Your task to perform on an android device: Search for seafood restaurants on Google Maps Image 0: 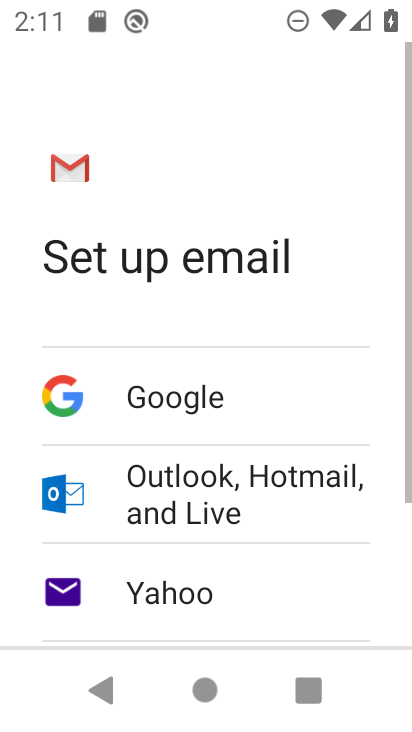
Step 0: press home button
Your task to perform on an android device: Search for seafood restaurants on Google Maps Image 1: 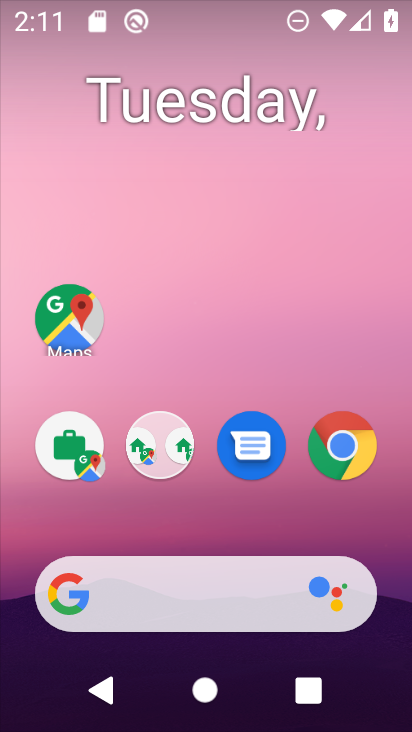
Step 1: click (25, 329)
Your task to perform on an android device: Search for seafood restaurants on Google Maps Image 2: 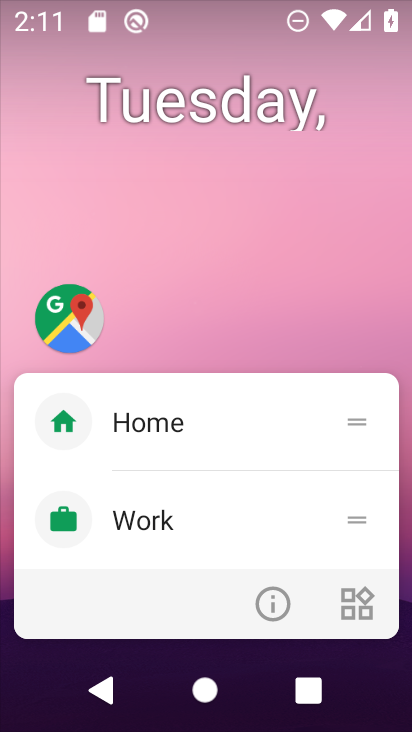
Step 2: click (136, 453)
Your task to perform on an android device: Search for seafood restaurants on Google Maps Image 3: 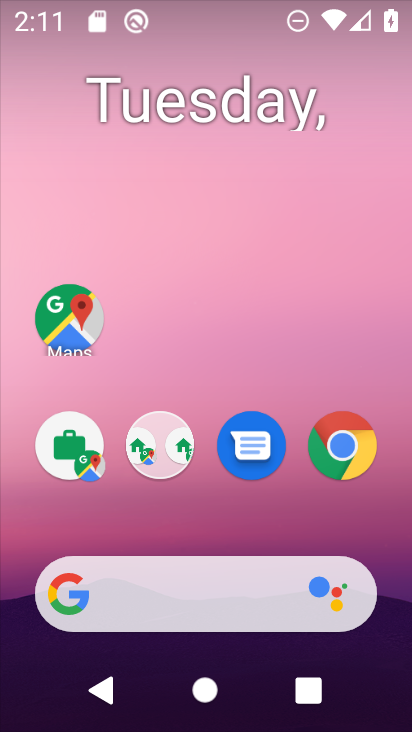
Step 3: click (148, 453)
Your task to perform on an android device: Search for seafood restaurants on Google Maps Image 4: 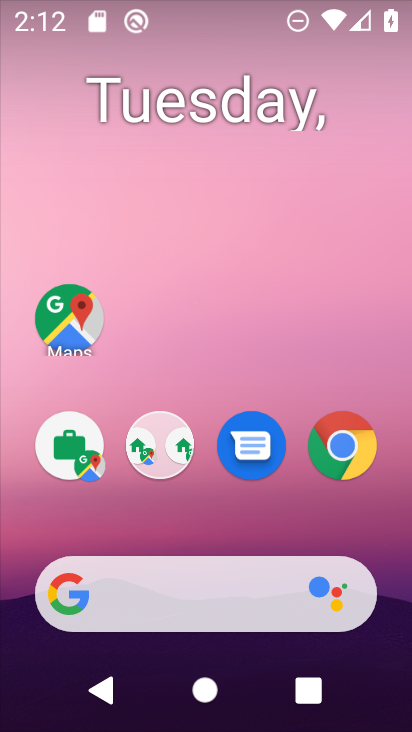
Step 4: click (67, 338)
Your task to perform on an android device: Search for seafood restaurants on Google Maps Image 5: 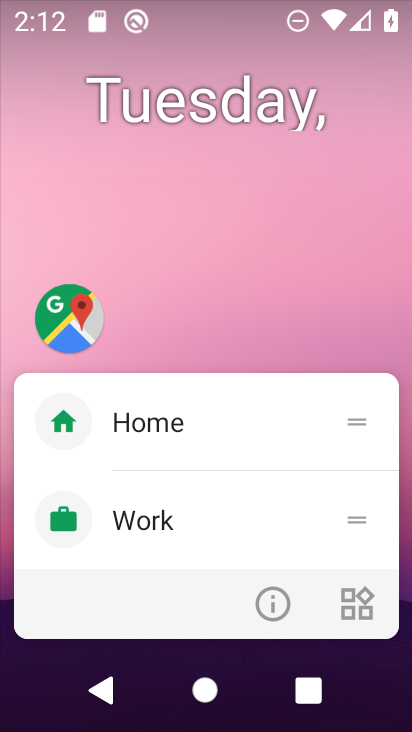
Step 5: click (267, 624)
Your task to perform on an android device: Search for seafood restaurants on Google Maps Image 6: 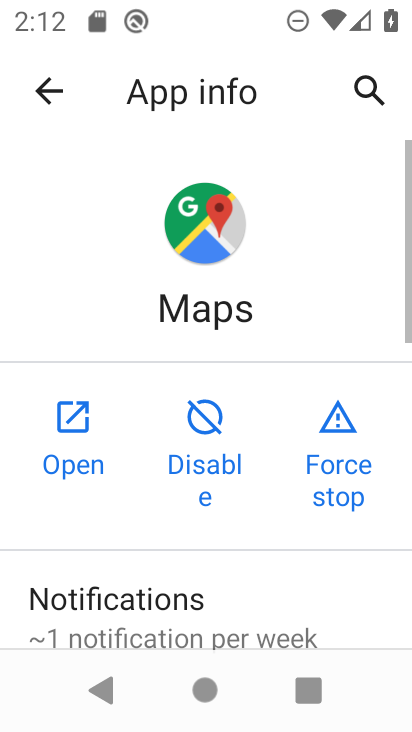
Step 6: task complete